Your task to perform on an android device: What time is it? Image 0: 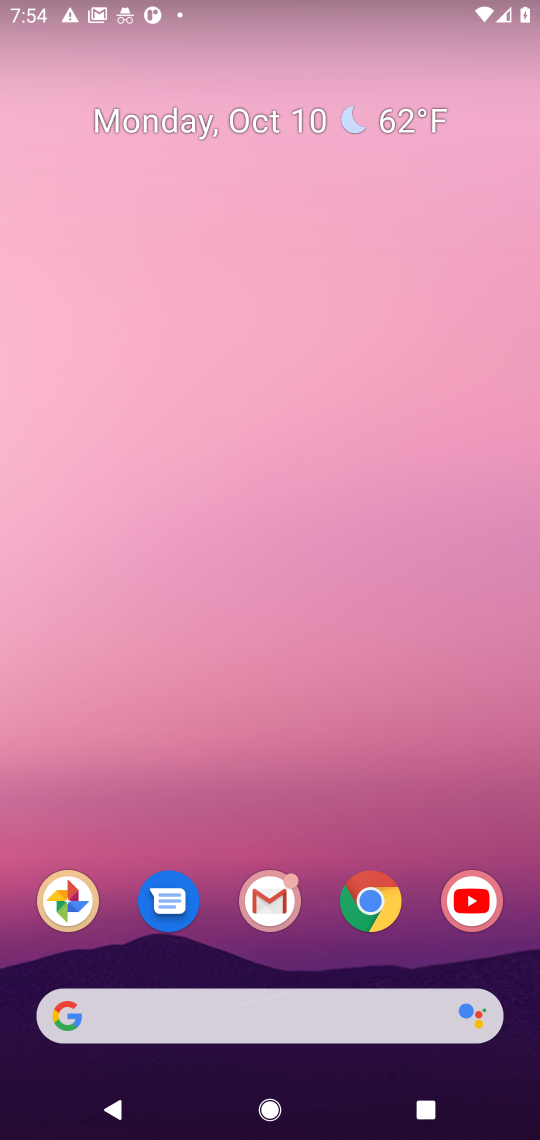
Step 0: drag from (344, 963) to (489, 6)
Your task to perform on an android device: What time is it? Image 1: 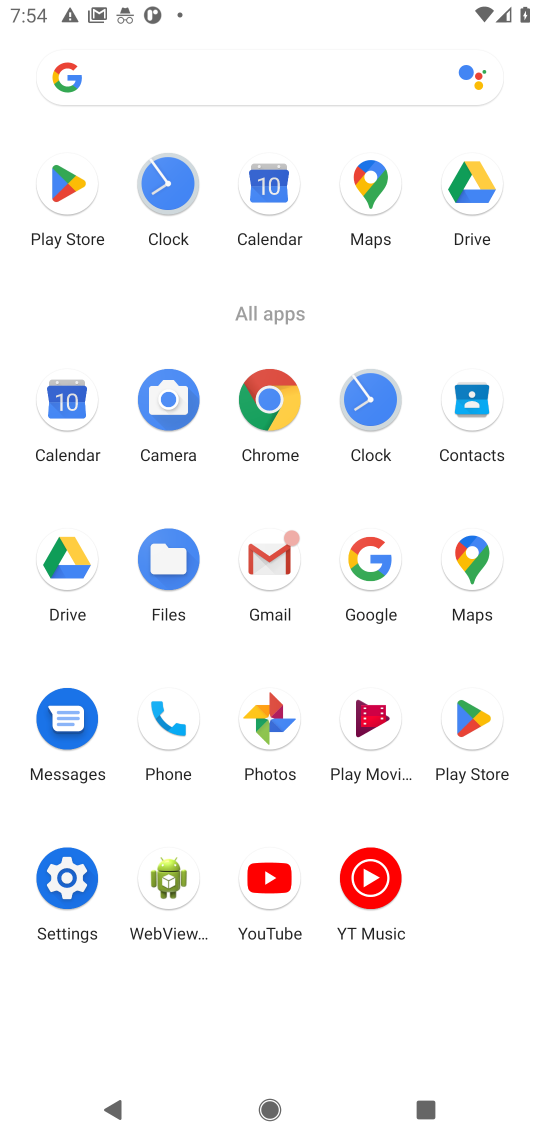
Step 1: click (377, 578)
Your task to perform on an android device: What time is it? Image 2: 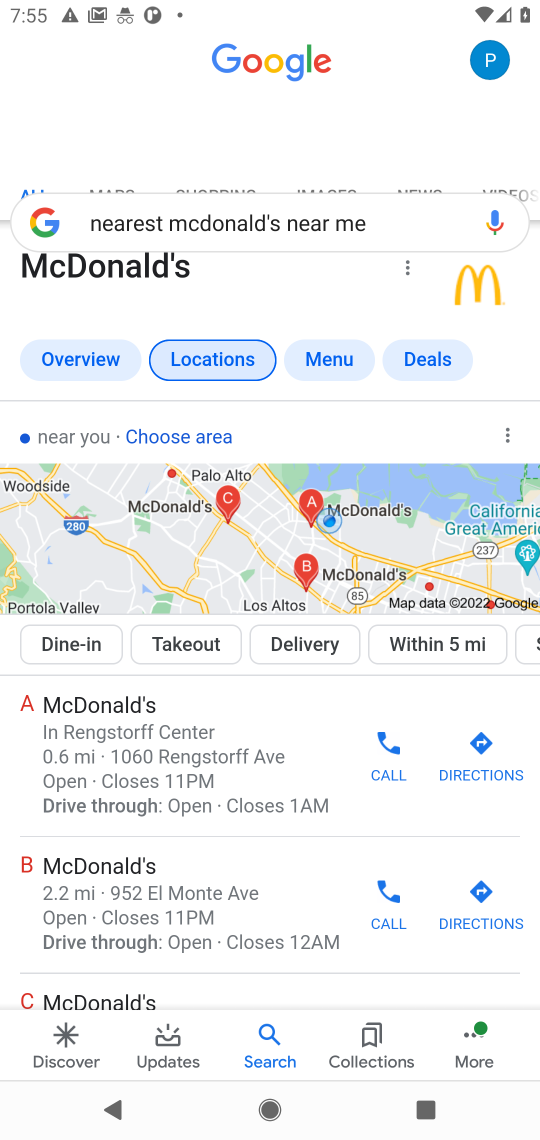
Step 2: click (406, 230)
Your task to perform on an android device: What time is it? Image 3: 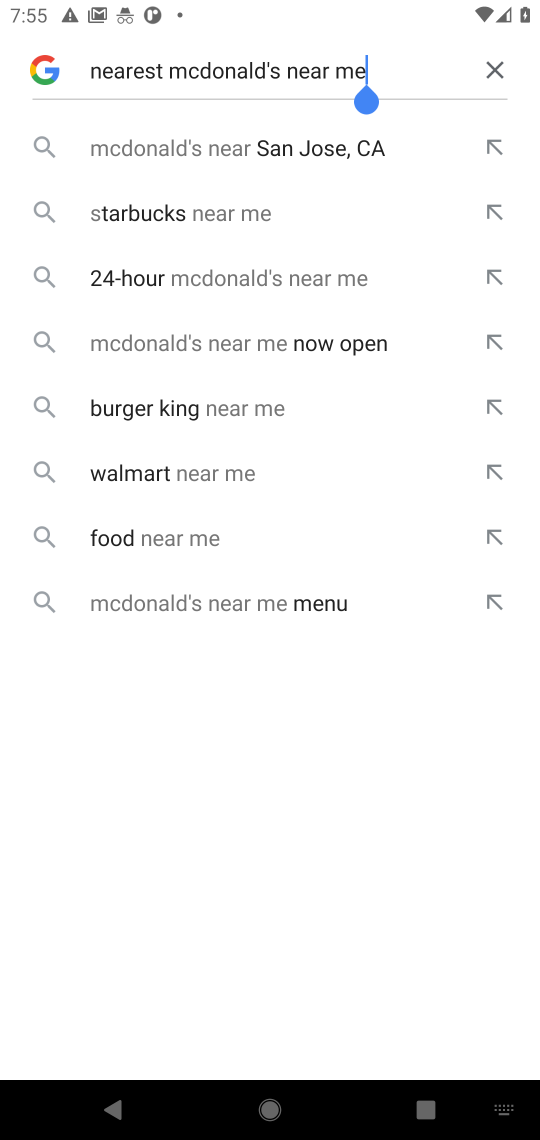
Step 3: click (497, 68)
Your task to perform on an android device: What time is it? Image 4: 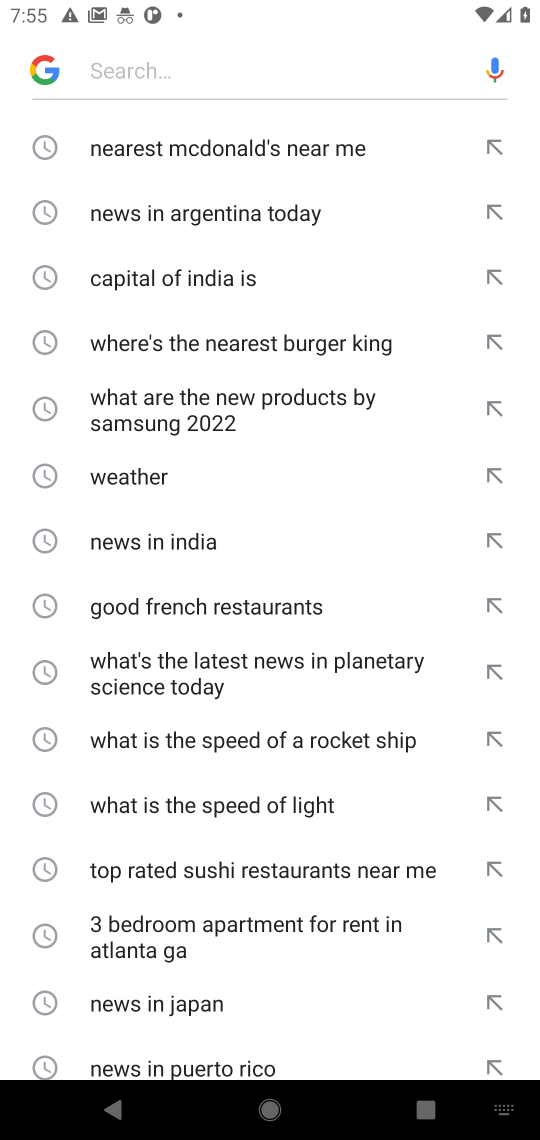
Step 4: type "What time is it?"
Your task to perform on an android device: What time is it? Image 5: 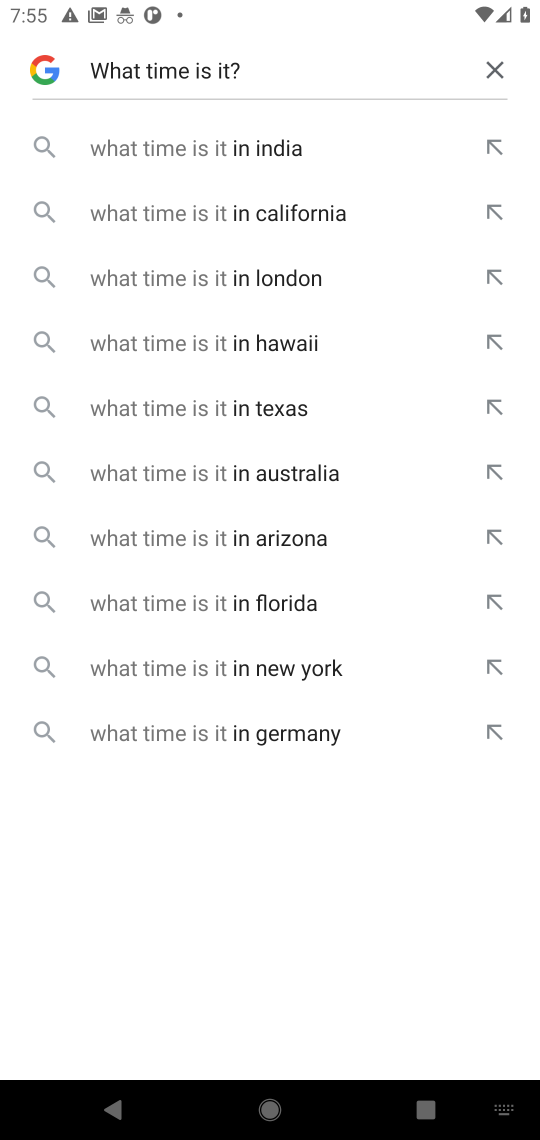
Step 5: click (300, 136)
Your task to perform on an android device: What time is it? Image 6: 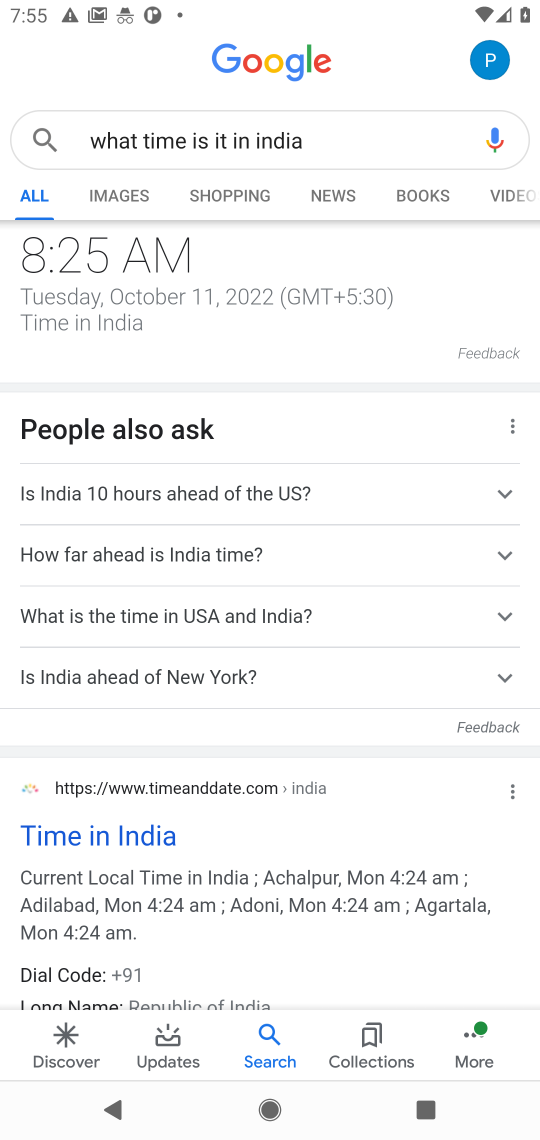
Step 6: task complete